Your task to perform on an android device: toggle priority inbox in the gmail app Image 0: 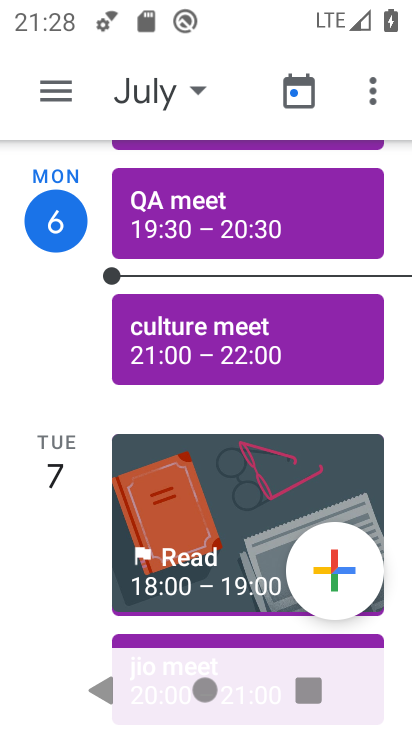
Step 0: press home button
Your task to perform on an android device: toggle priority inbox in the gmail app Image 1: 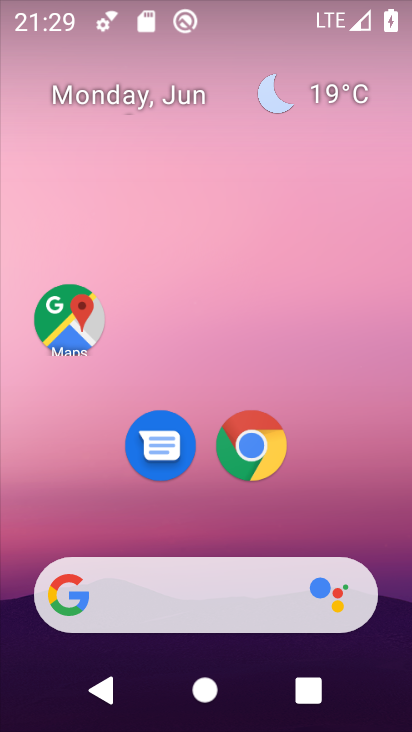
Step 1: drag from (222, 482) to (247, 48)
Your task to perform on an android device: toggle priority inbox in the gmail app Image 2: 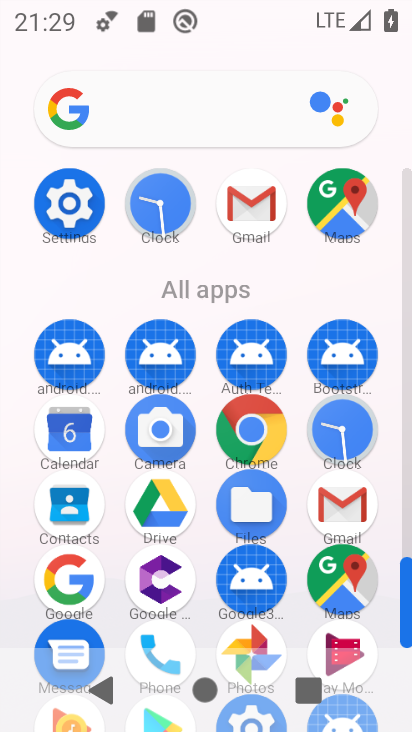
Step 2: click (340, 499)
Your task to perform on an android device: toggle priority inbox in the gmail app Image 3: 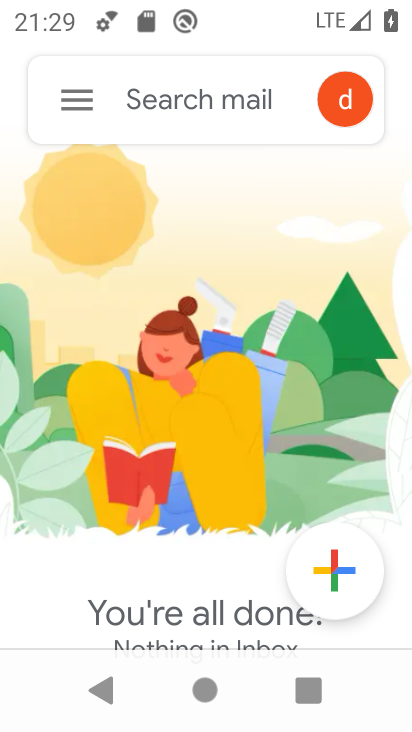
Step 3: click (69, 95)
Your task to perform on an android device: toggle priority inbox in the gmail app Image 4: 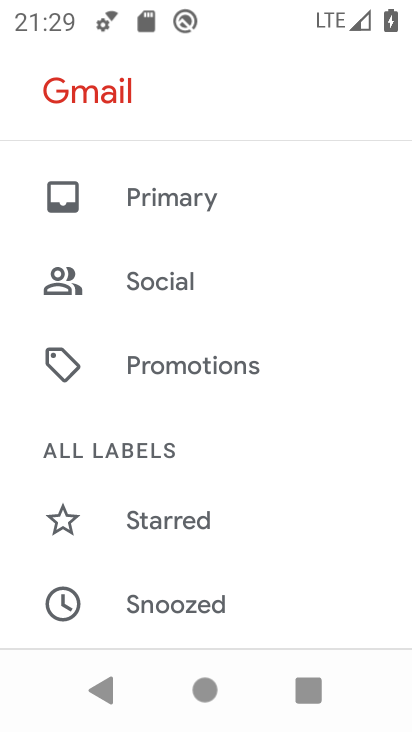
Step 4: drag from (239, 607) to (238, 101)
Your task to perform on an android device: toggle priority inbox in the gmail app Image 5: 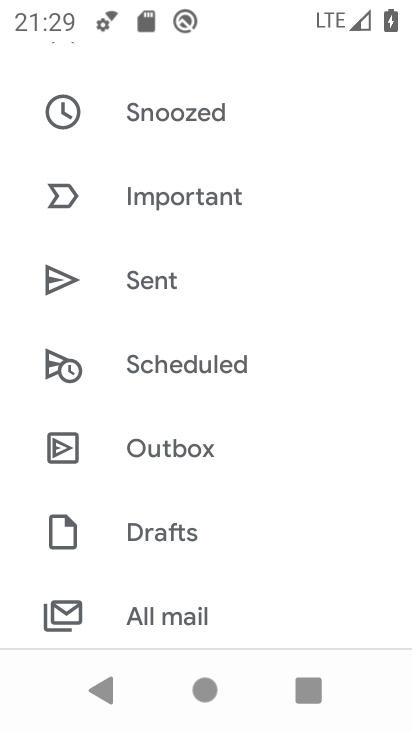
Step 5: drag from (220, 608) to (221, 120)
Your task to perform on an android device: toggle priority inbox in the gmail app Image 6: 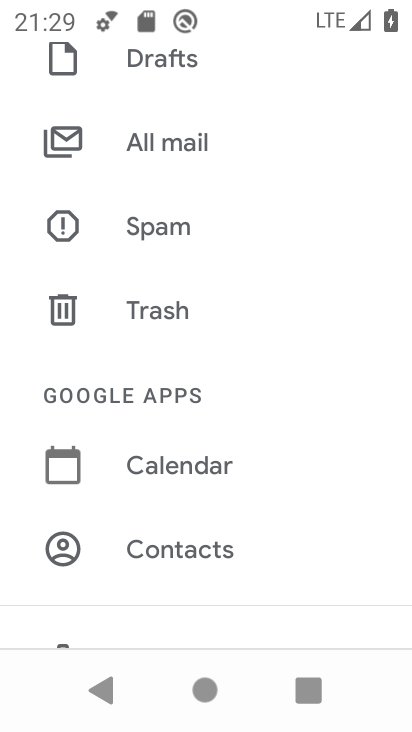
Step 6: drag from (216, 575) to (213, 76)
Your task to perform on an android device: toggle priority inbox in the gmail app Image 7: 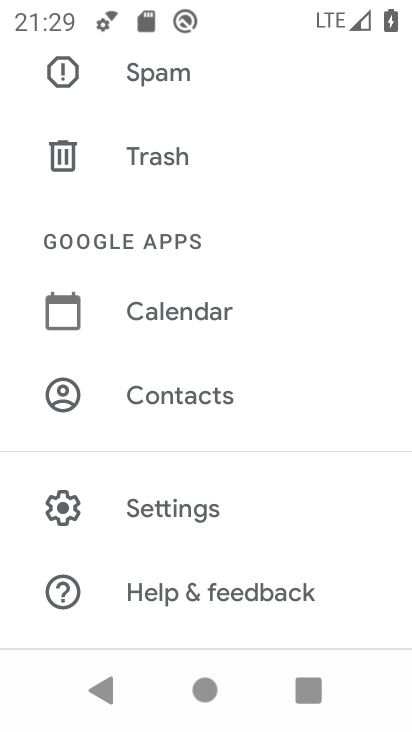
Step 7: click (231, 502)
Your task to perform on an android device: toggle priority inbox in the gmail app Image 8: 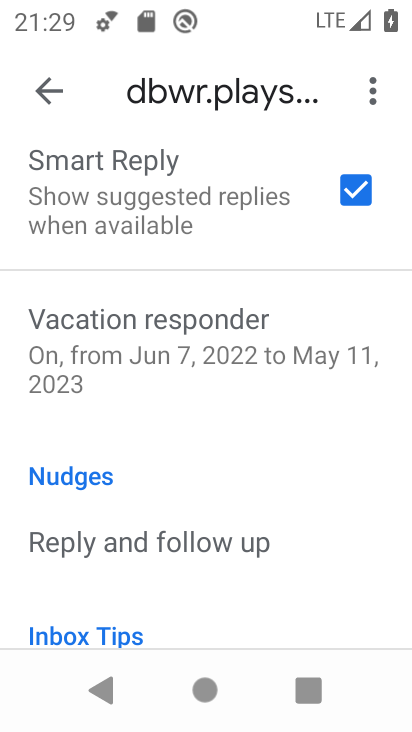
Step 8: drag from (142, 155) to (162, 716)
Your task to perform on an android device: toggle priority inbox in the gmail app Image 9: 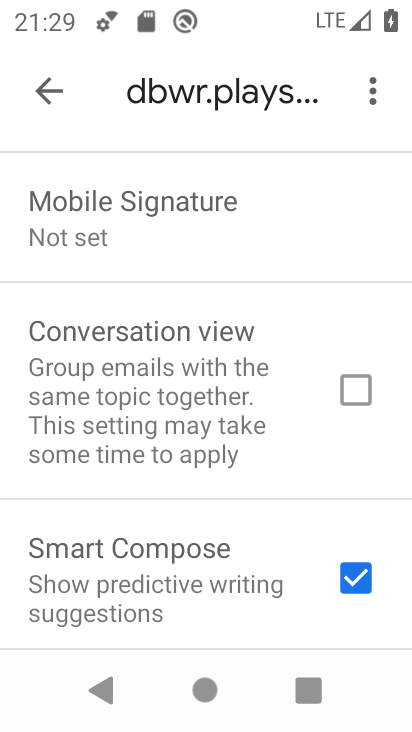
Step 9: drag from (173, 186) to (207, 681)
Your task to perform on an android device: toggle priority inbox in the gmail app Image 10: 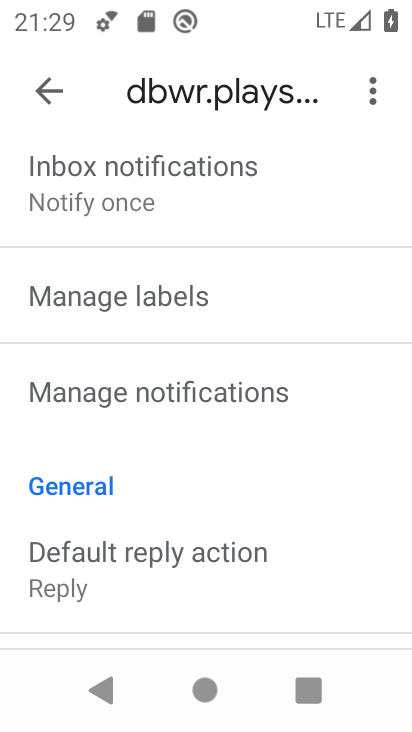
Step 10: drag from (171, 181) to (204, 667)
Your task to perform on an android device: toggle priority inbox in the gmail app Image 11: 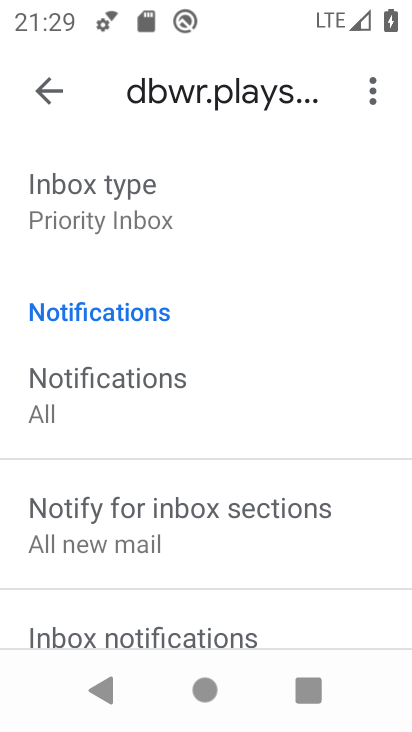
Step 11: drag from (162, 212) to (192, 617)
Your task to perform on an android device: toggle priority inbox in the gmail app Image 12: 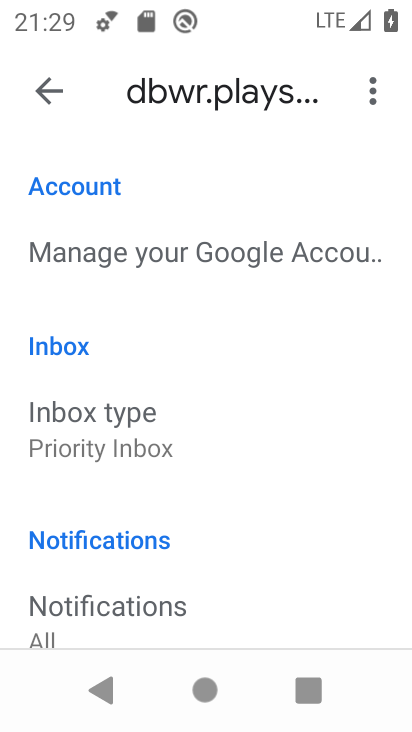
Step 12: click (179, 421)
Your task to perform on an android device: toggle priority inbox in the gmail app Image 13: 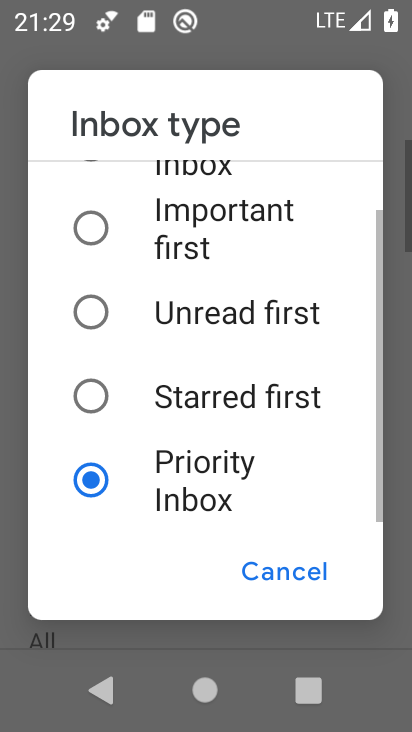
Step 13: click (133, 488)
Your task to perform on an android device: toggle priority inbox in the gmail app Image 14: 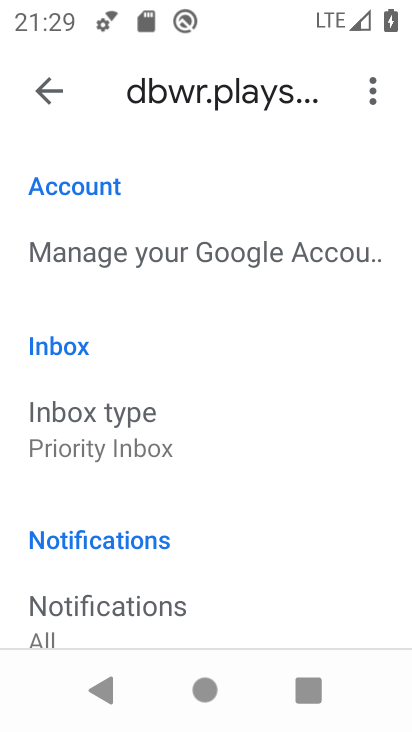
Step 14: task complete